Your task to perform on an android device: toggle show notifications on the lock screen Image 0: 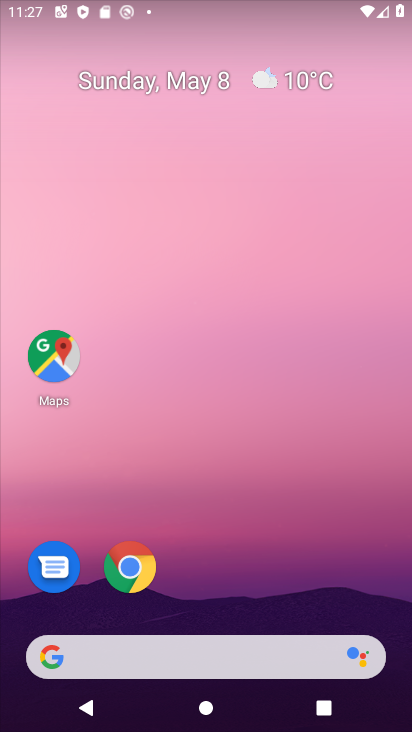
Step 0: drag from (288, 592) to (262, 215)
Your task to perform on an android device: toggle show notifications on the lock screen Image 1: 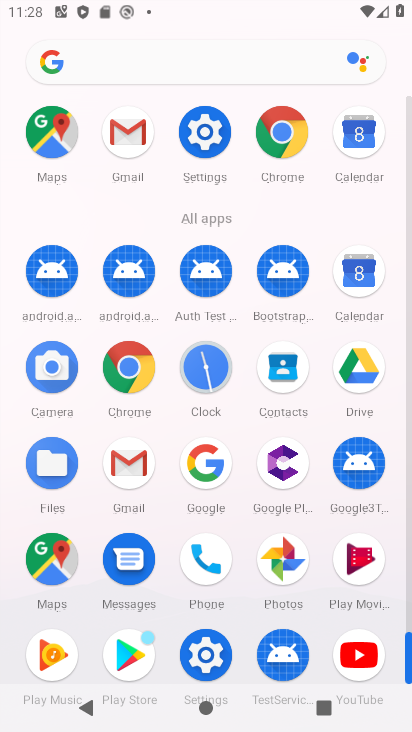
Step 1: click (226, 144)
Your task to perform on an android device: toggle show notifications on the lock screen Image 2: 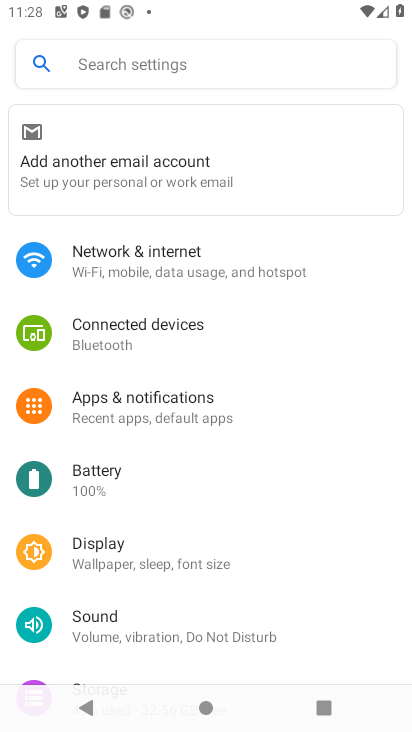
Step 2: click (207, 401)
Your task to perform on an android device: toggle show notifications on the lock screen Image 3: 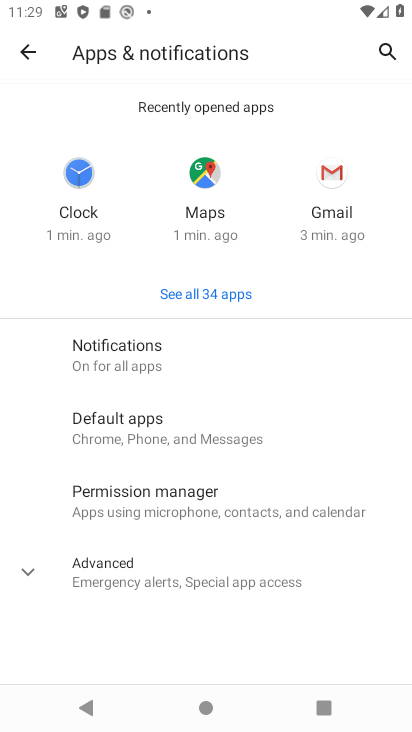
Step 3: click (212, 368)
Your task to perform on an android device: toggle show notifications on the lock screen Image 4: 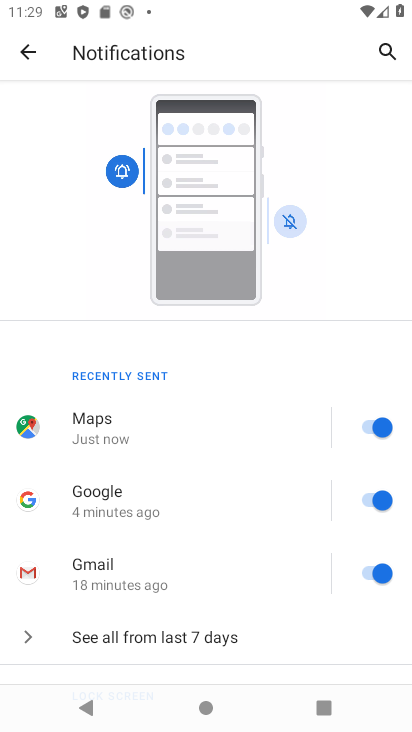
Step 4: drag from (174, 528) to (258, 0)
Your task to perform on an android device: toggle show notifications on the lock screen Image 5: 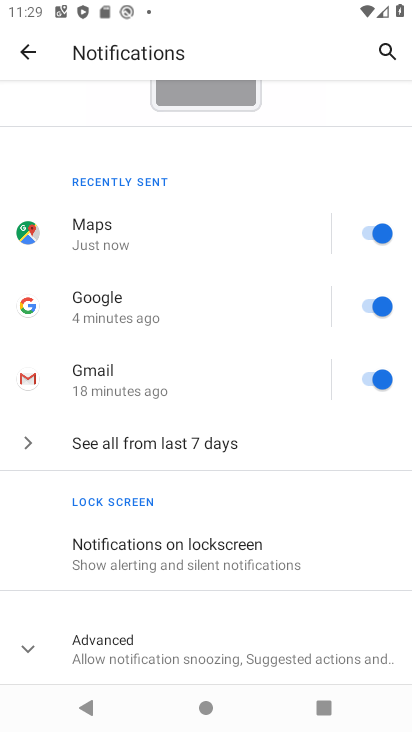
Step 5: drag from (207, 265) to (212, 18)
Your task to perform on an android device: toggle show notifications on the lock screen Image 6: 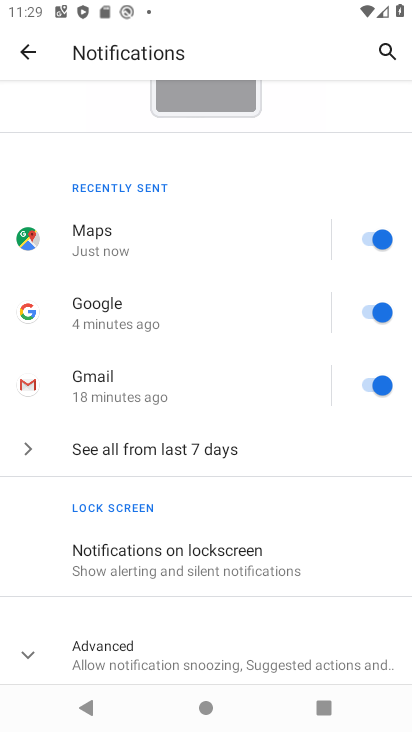
Step 6: click (155, 649)
Your task to perform on an android device: toggle show notifications on the lock screen Image 7: 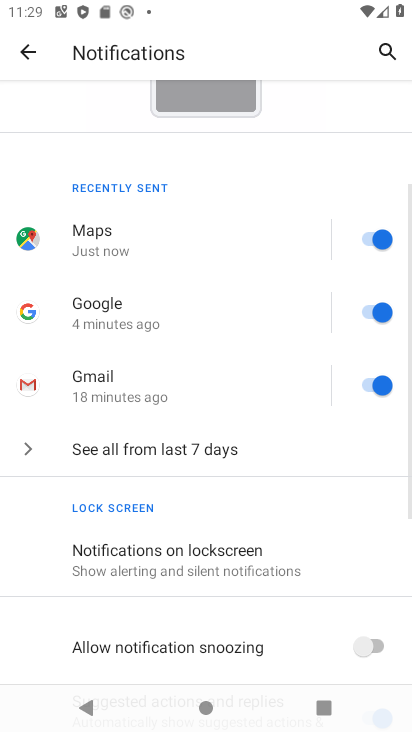
Step 7: task complete